Your task to perform on an android device: add a contact Image 0: 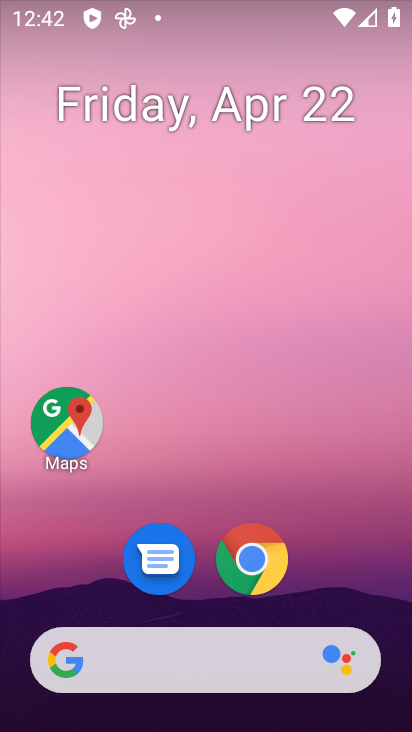
Step 0: drag from (355, 561) to (381, 83)
Your task to perform on an android device: add a contact Image 1: 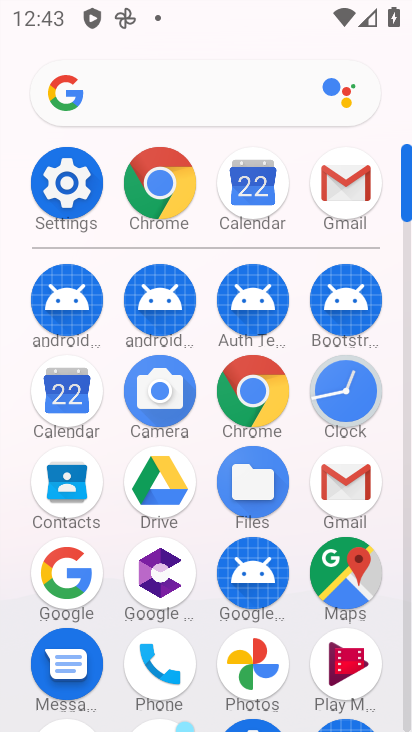
Step 1: click (76, 494)
Your task to perform on an android device: add a contact Image 2: 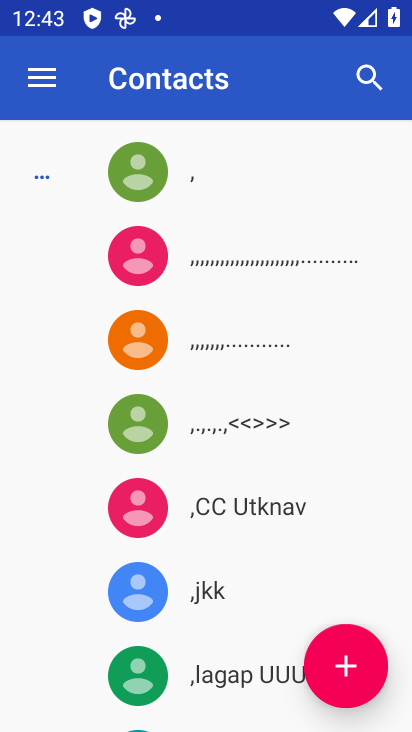
Step 2: click (344, 656)
Your task to perform on an android device: add a contact Image 3: 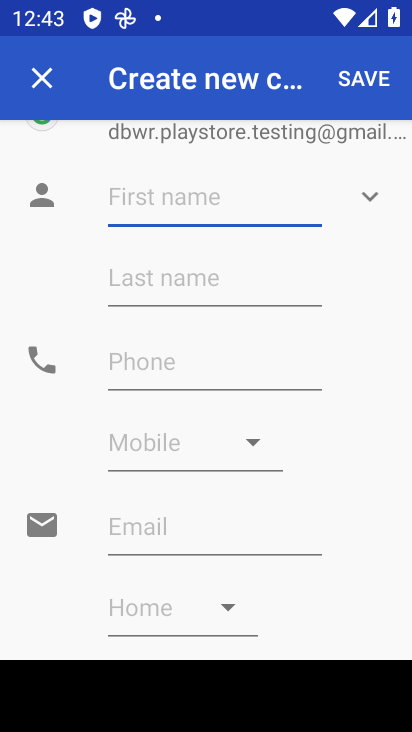
Step 3: type "love"
Your task to perform on an android device: add a contact Image 4: 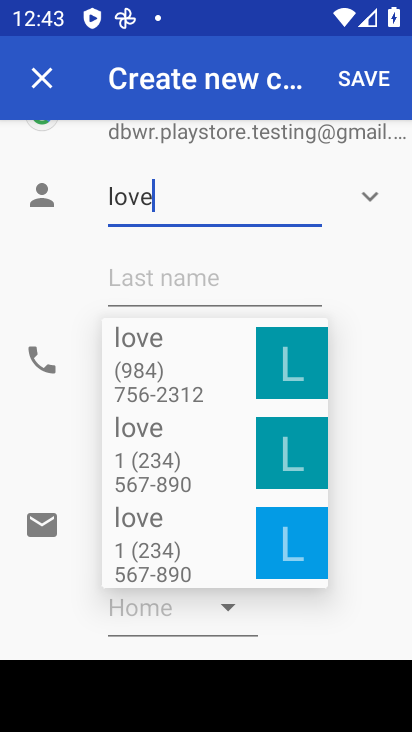
Step 4: click (389, 350)
Your task to perform on an android device: add a contact Image 5: 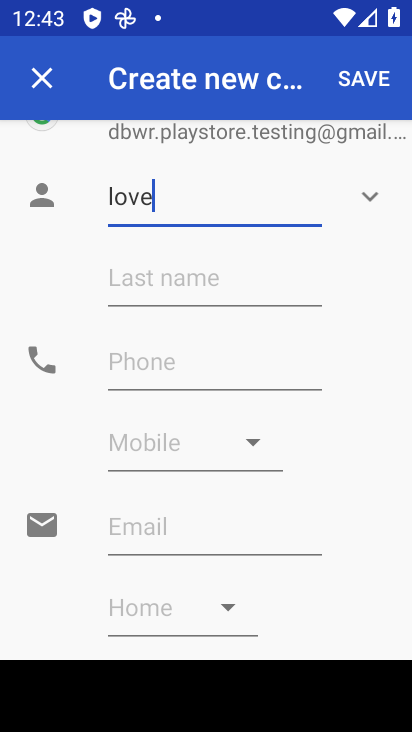
Step 5: click (220, 373)
Your task to perform on an android device: add a contact Image 6: 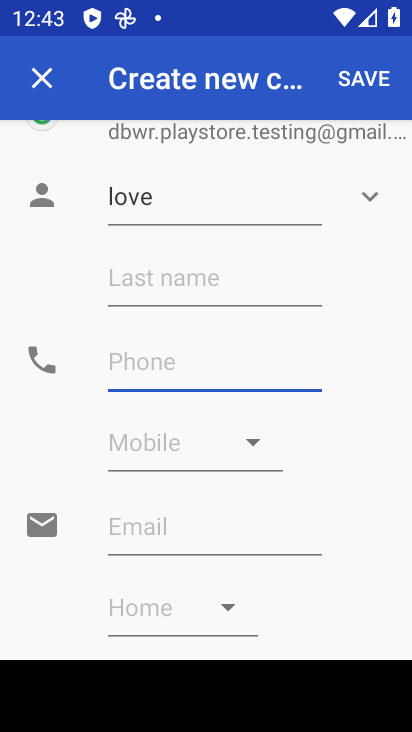
Step 6: type "000000000"
Your task to perform on an android device: add a contact Image 7: 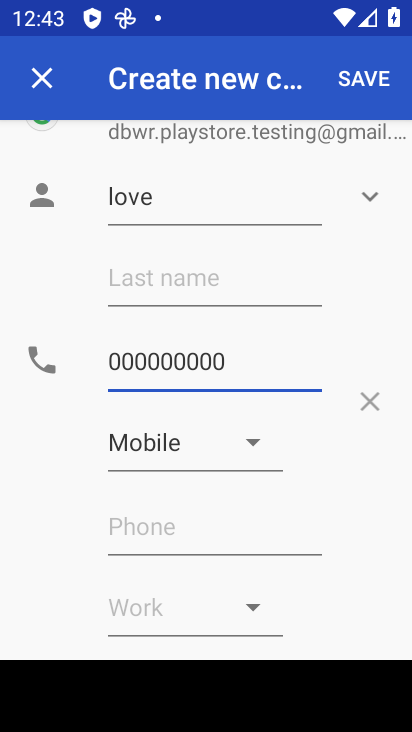
Step 7: click (369, 81)
Your task to perform on an android device: add a contact Image 8: 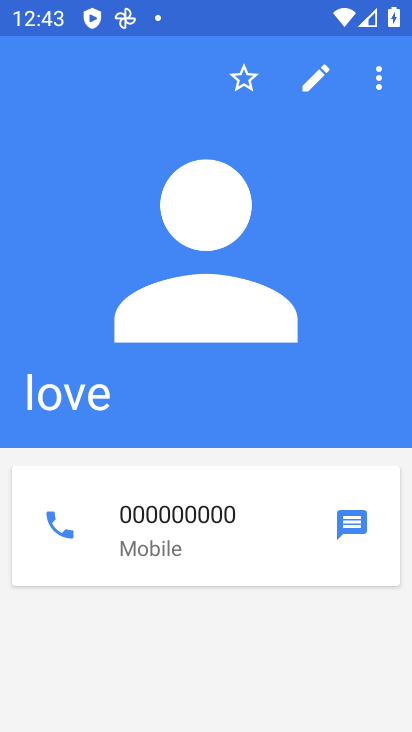
Step 8: task complete